Your task to perform on an android device: delete the emails in spam in the gmail app Image 0: 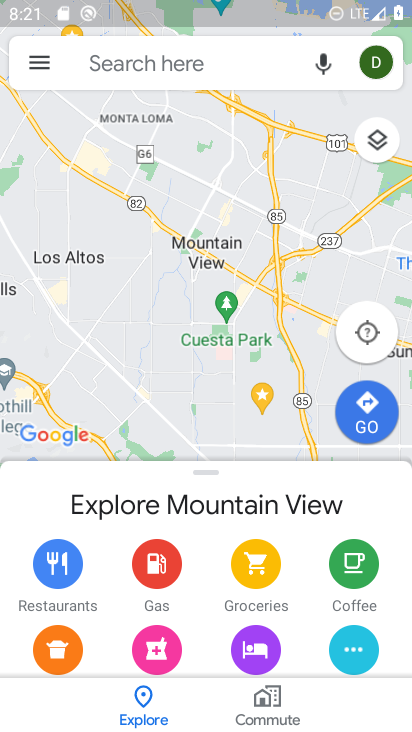
Step 0: press home button
Your task to perform on an android device: delete the emails in spam in the gmail app Image 1: 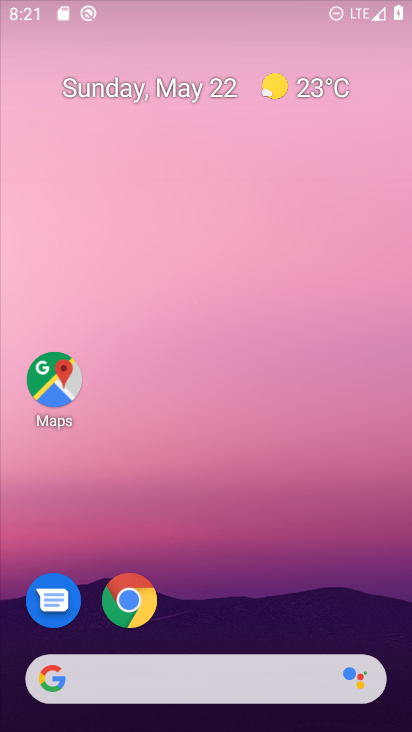
Step 1: drag from (360, 619) to (218, 25)
Your task to perform on an android device: delete the emails in spam in the gmail app Image 2: 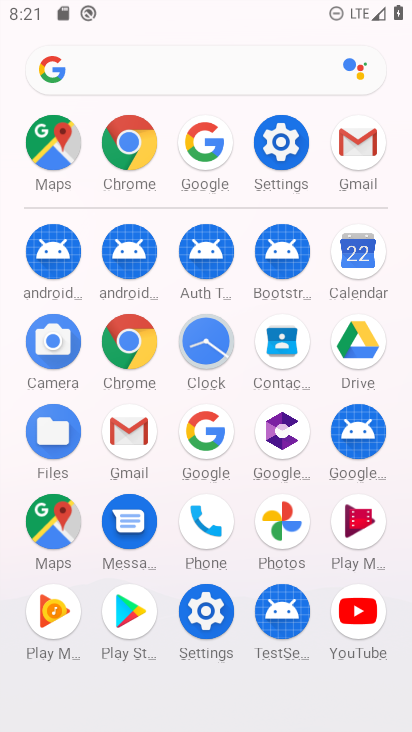
Step 2: click (134, 449)
Your task to perform on an android device: delete the emails in spam in the gmail app Image 3: 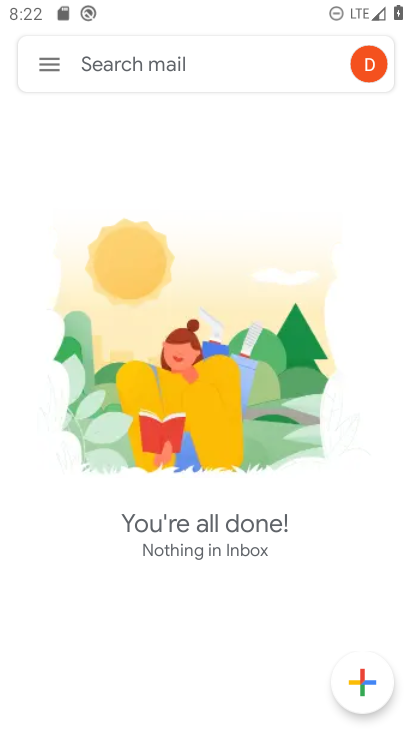
Step 3: task complete